Your task to perform on an android device: show emergency info Image 0: 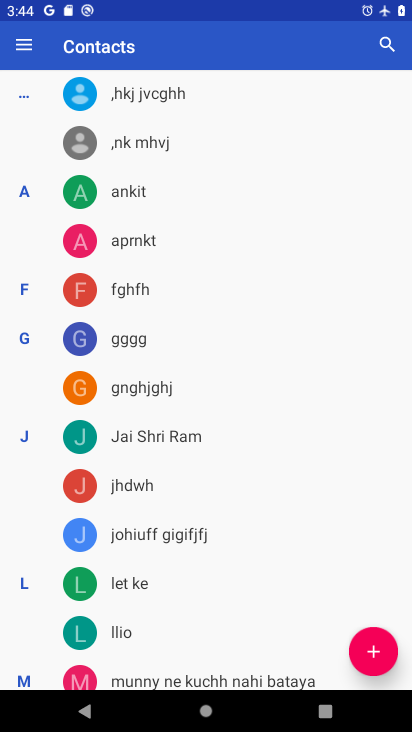
Step 0: press home button
Your task to perform on an android device: show emergency info Image 1: 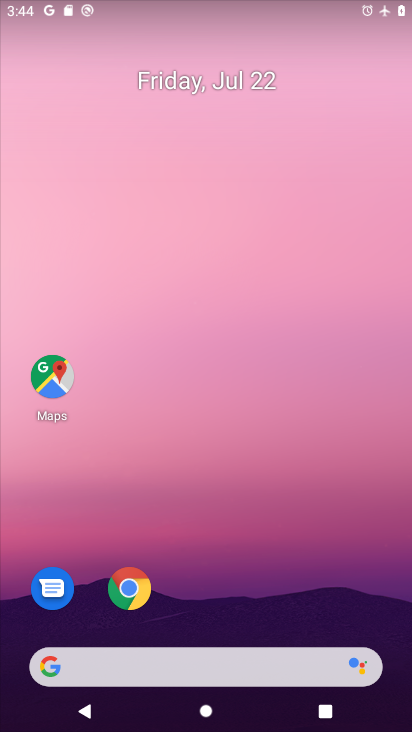
Step 1: drag from (233, 621) to (254, 197)
Your task to perform on an android device: show emergency info Image 2: 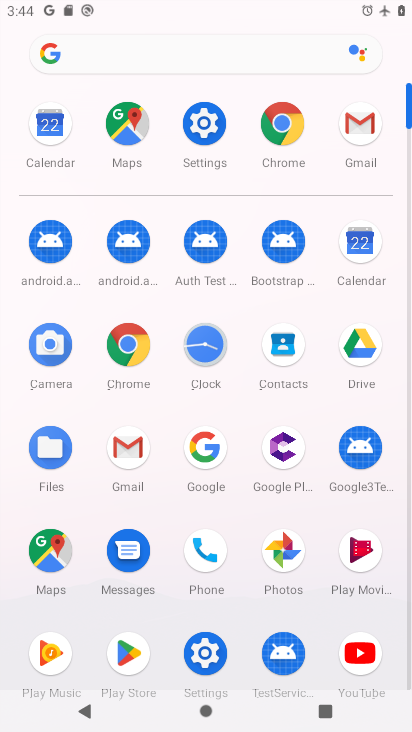
Step 2: click (205, 648)
Your task to perform on an android device: show emergency info Image 3: 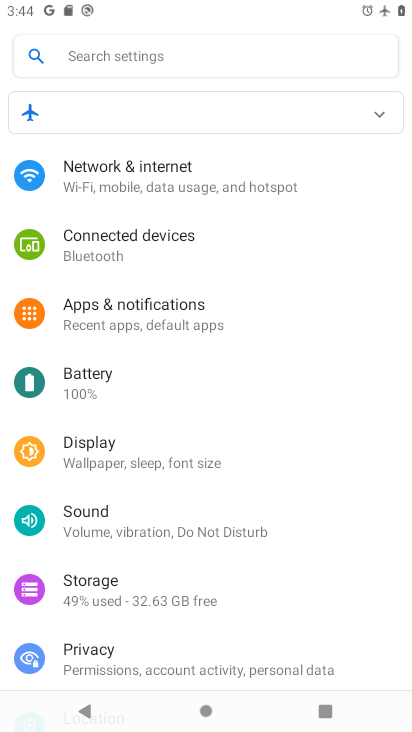
Step 3: drag from (269, 573) to (288, 217)
Your task to perform on an android device: show emergency info Image 4: 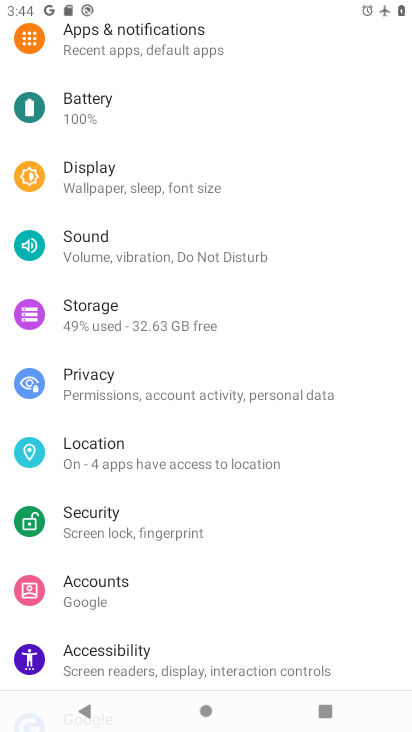
Step 4: drag from (210, 626) to (246, 353)
Your task to perform on an android device: show emergency info Image 5: 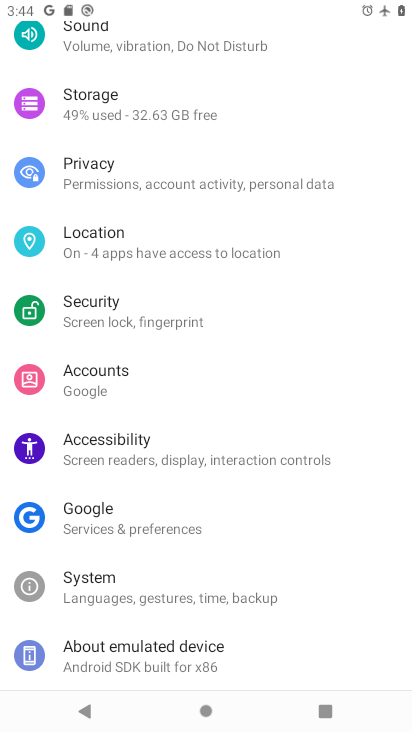
Step 5: click (158, 638)
Your task to perform on an android device: show emergency info Image 6: 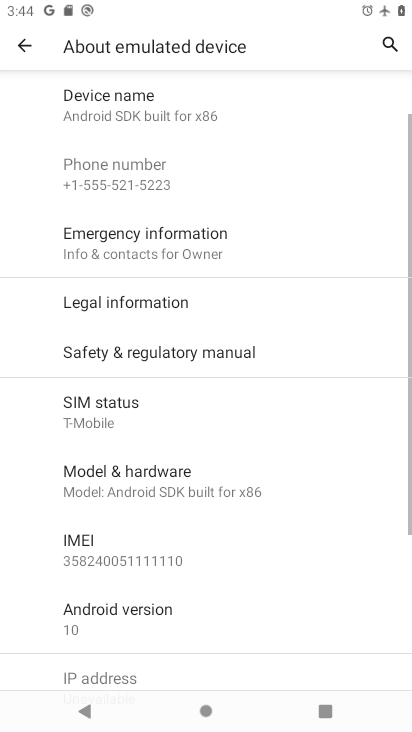
Step 6: click (153, 239)
Your task to perform on an android device: show emergency info Image 7: 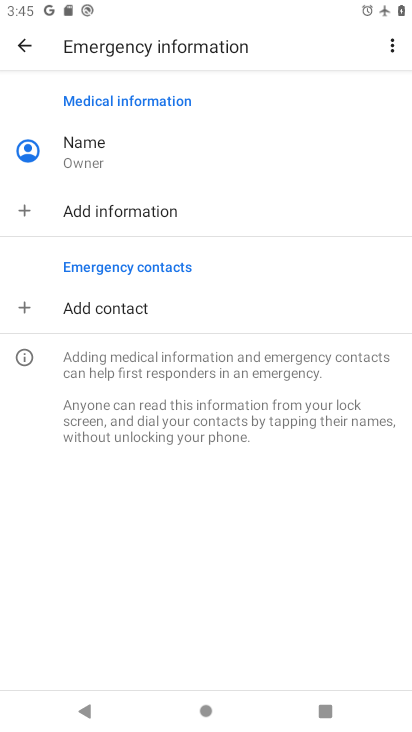
Step 7: task complete